Your task to perform on an android device: delete the emails in spam in the gmail app Image 0: 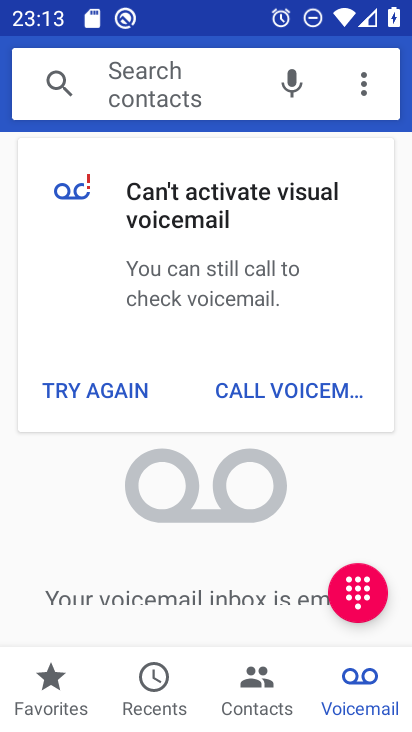
Step 0: press home button
Your task to perform on an android device: delete the emails in spam in the gmail app Image 1: 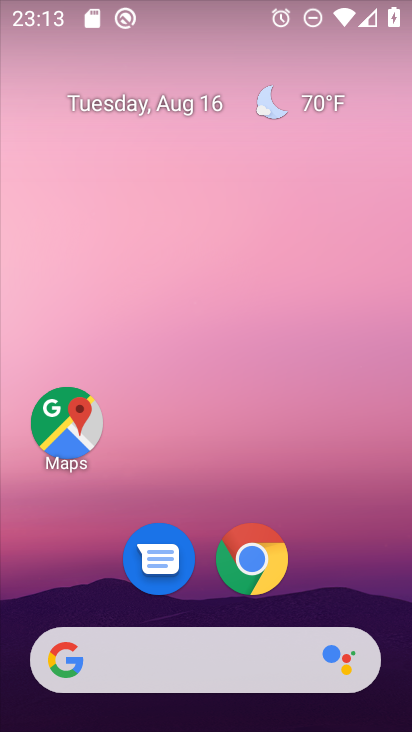
Step 1: drag from (175, 657) to (194, 94)
Your task to perform on an android device: delete the emails in spam in the gmail app Image 2: 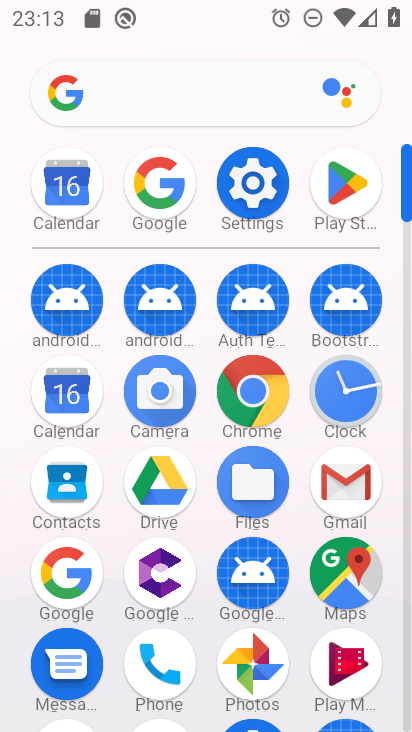
Step 2: click (341, 478)
Your task to perform on an android device: delete the emails in spam in the gmail app Image 3: 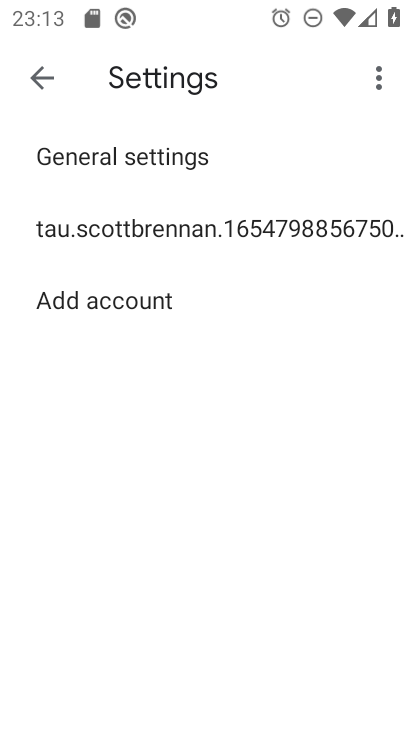
Step 3: press back button
Your task to perform on an android device: delete the emails in spam in the gmail app Image 4: 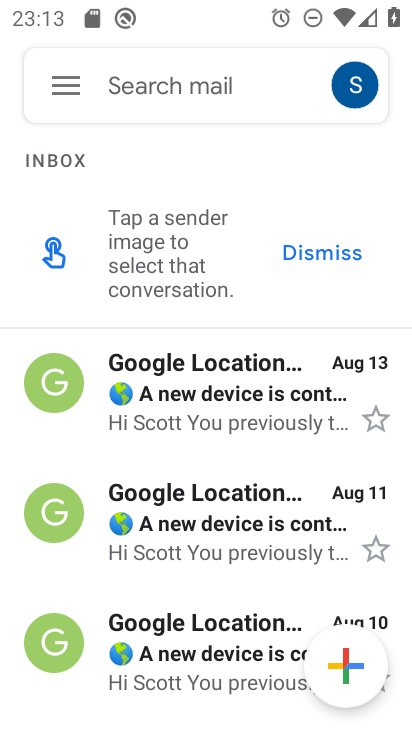
Step 4: click (65, 89)
Your task to perform on an android device: delete the emails in spam in the gmail app Image 5: 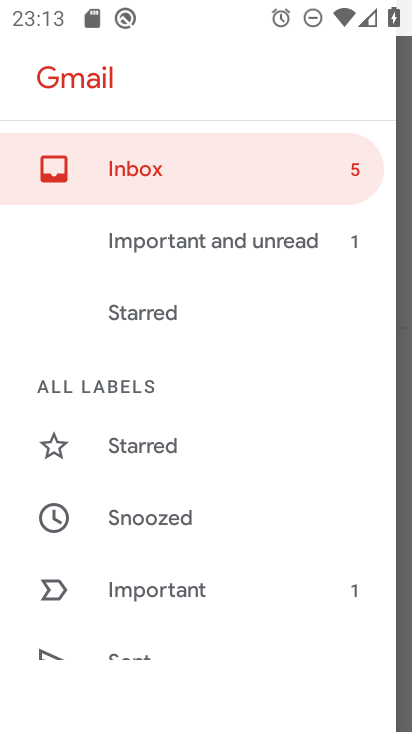
Step 5: drag from (158, 496) to (230, 395)
Your task to perform on an android device: delete the emails in spam in the gmail app Image 6: 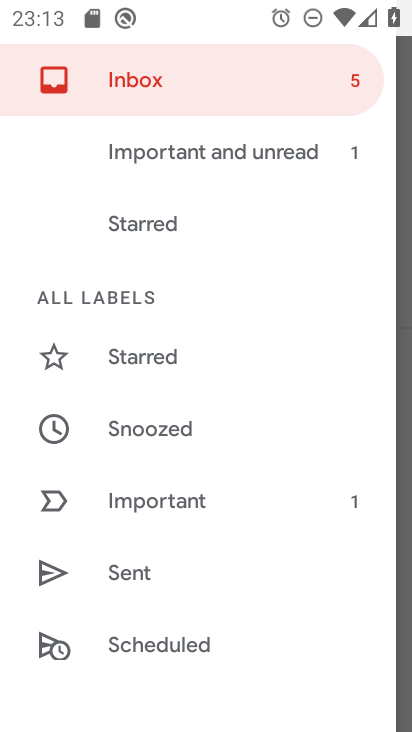
Step 6: drag from (185, 569) to (260, 444)
Your task to perform on an android device: delete the emails in spam in the gmail app Image 7: 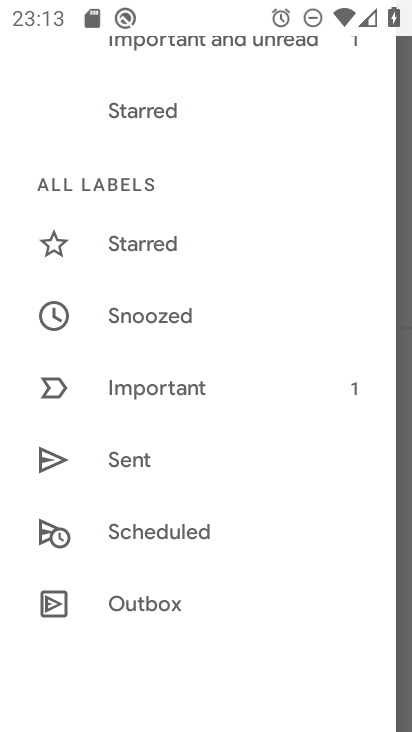
Step 7: drag from (187, 552) to (282, 429)
Your task to perform on an android device: delete the emails in spam in the gmail app Image 8: 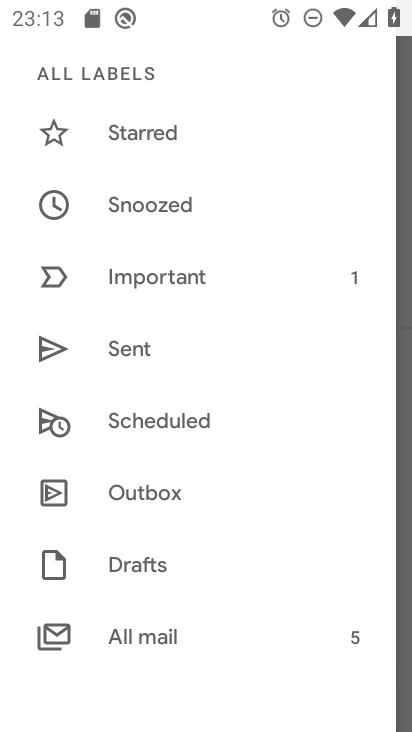
Step 8: drag from (199, 554) to (293, 442)
Your task to perform on an android device: delete the emails in spam in the gmail app Image 9: 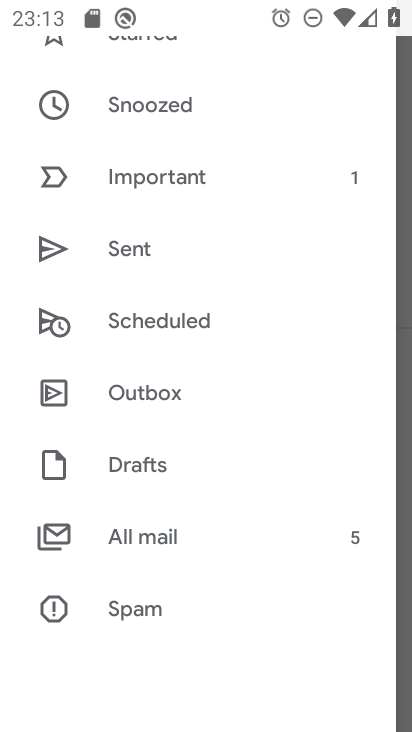
Step 9: click (159, 611)
Your task to perform on an android device: delete the emails in spam in the gmail app Image 10: 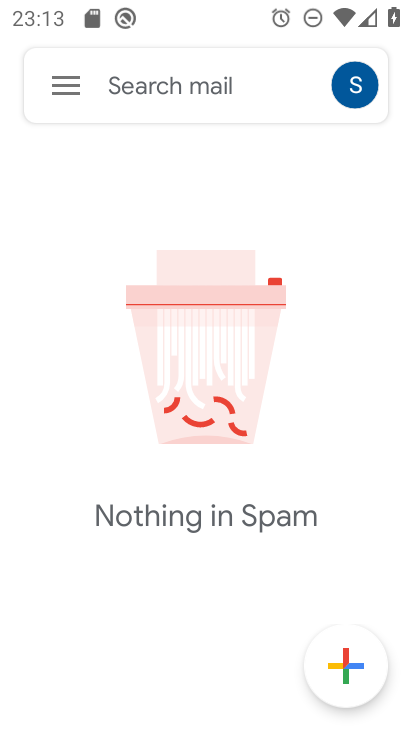
Step 10: task complete